Your task to perform on an android device: Go to network settings Image 0: 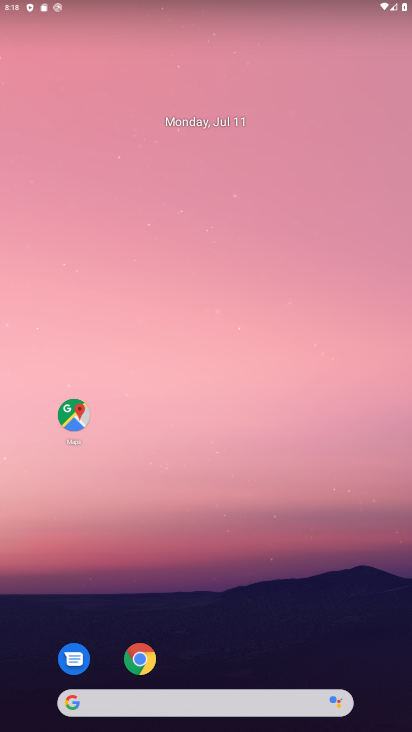
Step 0: drag from (41, 698) to (164, 163)
Your task to perform on an android device: Go to network settings Image 1: 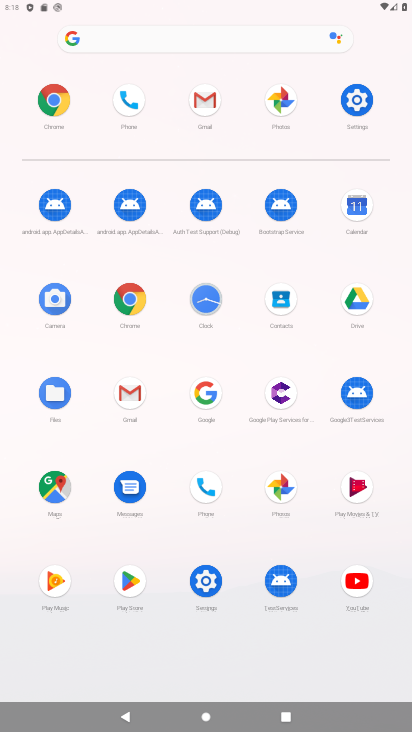
Step 1: click (200, 584)
Your task to perform on an android device: Go to network settings Image 2: 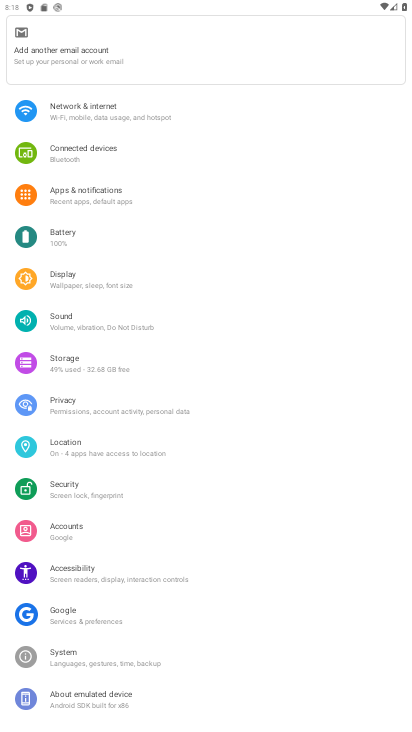
Step 2: task complete